Your task to perform on an android device: Open Google Chrome and click the shortcut for Amazon.com Image 0: 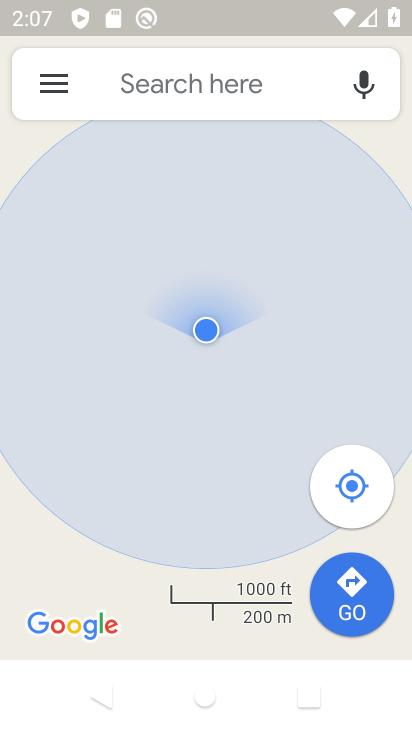
Step 0: press home button
Your task to perform on an android device: Open Google Chrome and click the shortcut for Amazon.com Image 1: 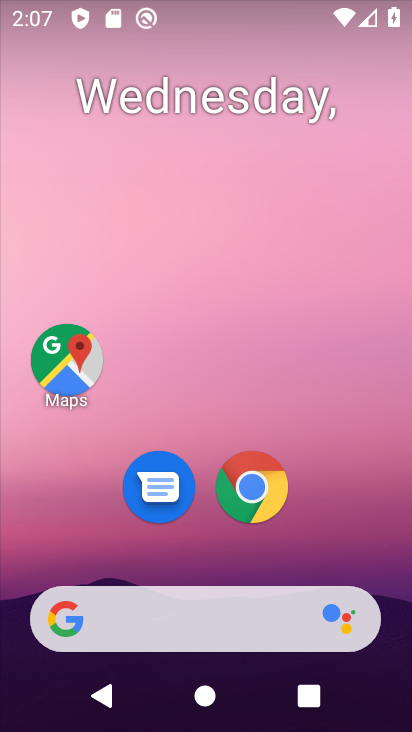
Step 1: click (266, 475)
Your task to perform on an android device: Open Google Chrome and click the shortcut for Amazon.com Image 2: 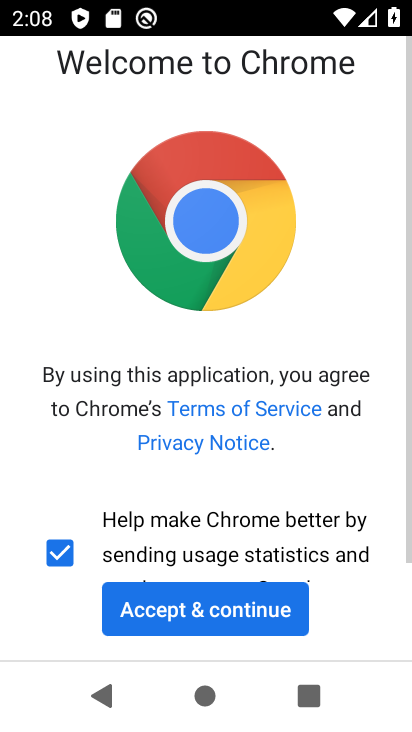
Step 2: click (246, 610)
Your task to perform on an android device: Open Google Chrome and click the shortcut for Amazon.com Image 3: 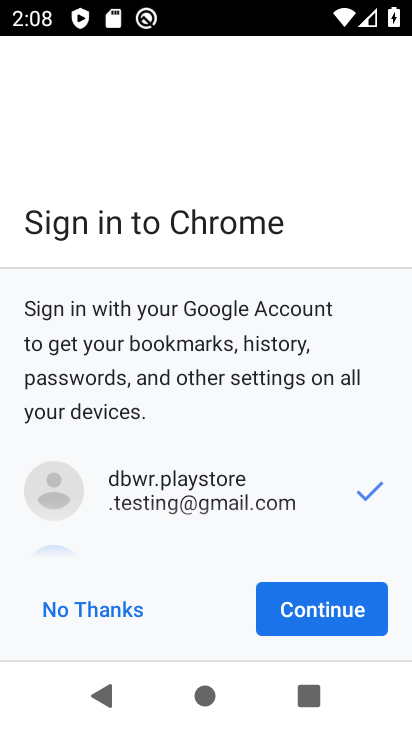
Step 3: click (310, 608)
Your task to perform on an android device: Open Google Chrome and click the shortcut for Amazon.com Image 4: 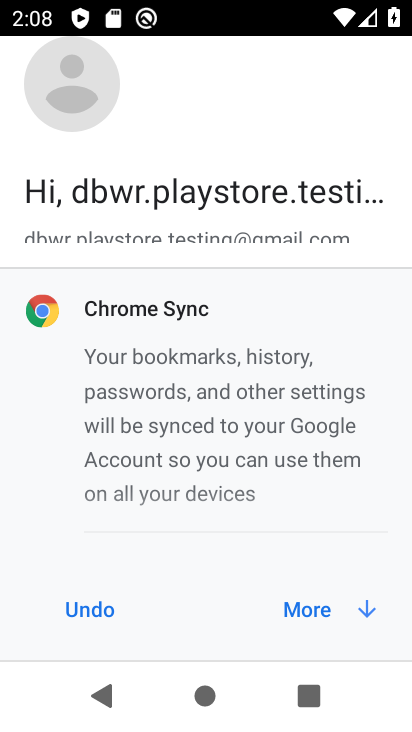
Step 4: click (311, 608)
Your task to perform on an android device: Open Google Chrome and click the shortcut for Amazon.com Image 5: 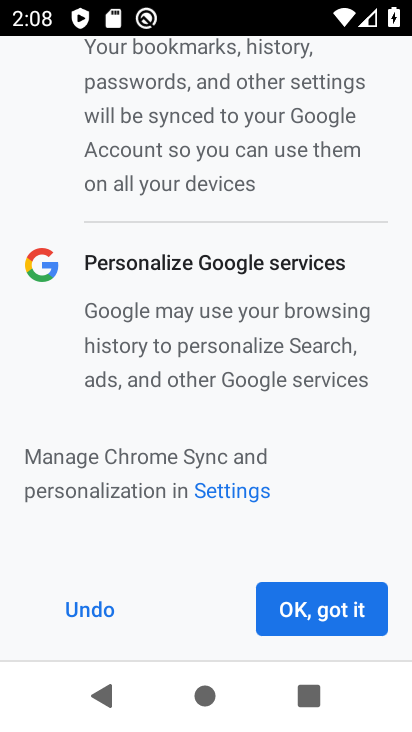
Step 5: click (311, 607)
Your task to perform on an android device: Open Google Chrome and click the shortcut for Amazon.com Image 6: 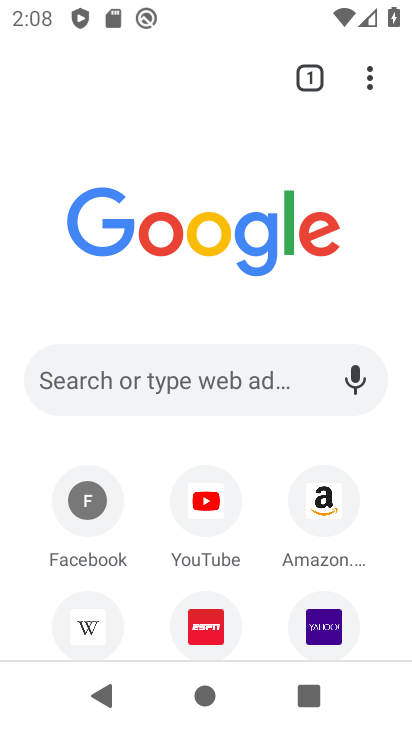
Step 6: click (334, 506)
Your task to perform on an android device: Open Google Chrome and click the shortcut for Amazon.com Image 7: 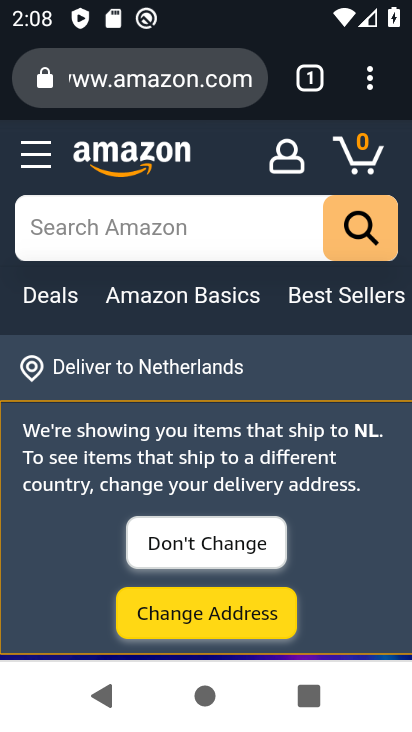
Step 7: task complete